Your task to perform on an android device: Search for Mexican restaurants on Maps Image 0: 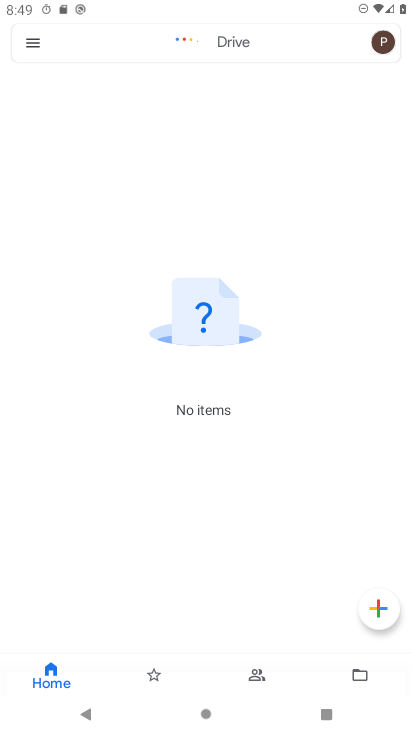
Step 0: press back button
Your task to perform on an android device: Search for Mexican restaurants on Maps Image 1: 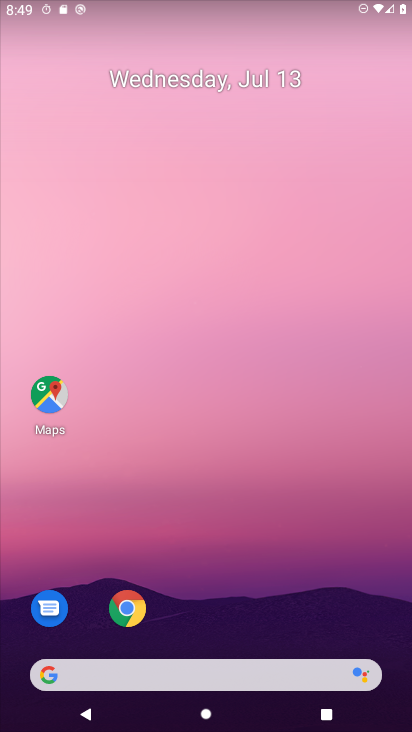
Step 1: drag from (263, 596) to (287, 230)
Your task to perform on an android device: Search for Mexican restaurants on Maps Image 2: 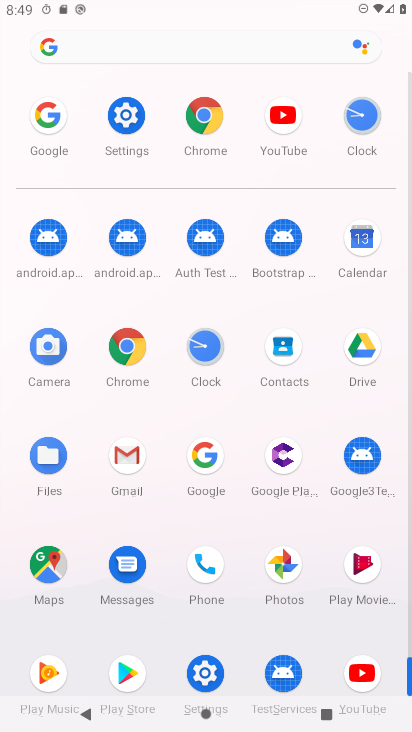
Step 2: click (45, 553)
Your task to perform on an android device: Search for Mexican restaurants on Maps Image 3: 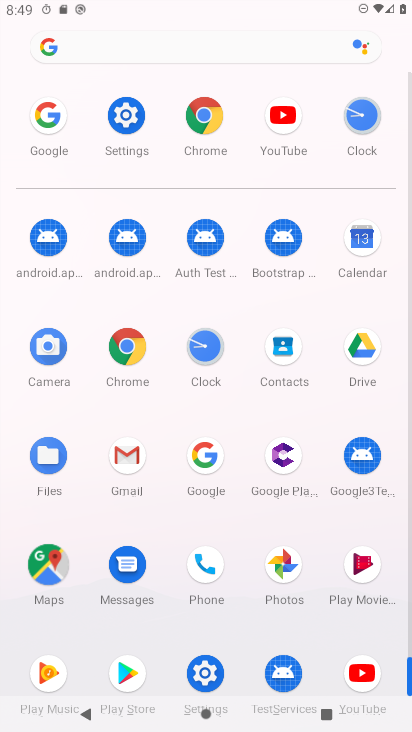
Step 3: click (45, 553)
Your task to perform on an android device: Search for Mexican restaurants on Maps Image 4: 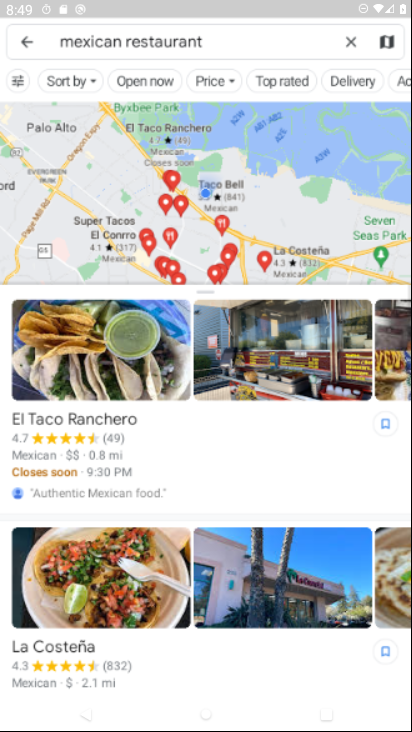
Step 4: click (45, 553)
Your task to perform on an android device: Search for Mexican restaurants on Maps Image 5: 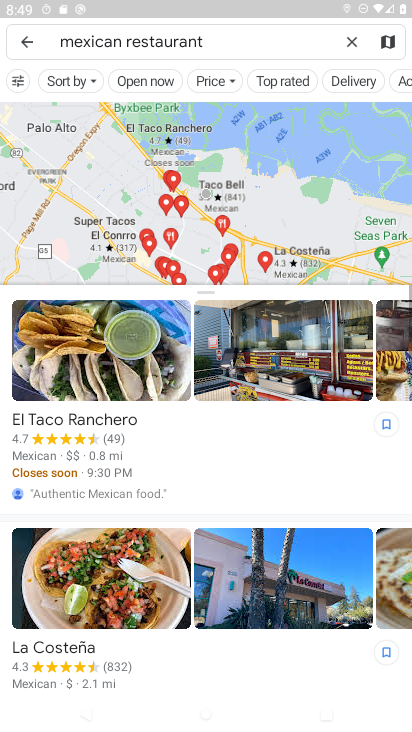
Step 5: click (348, 26)
Your task to perform on an android device: Search for Mexican restaurants on Maps Image 6: 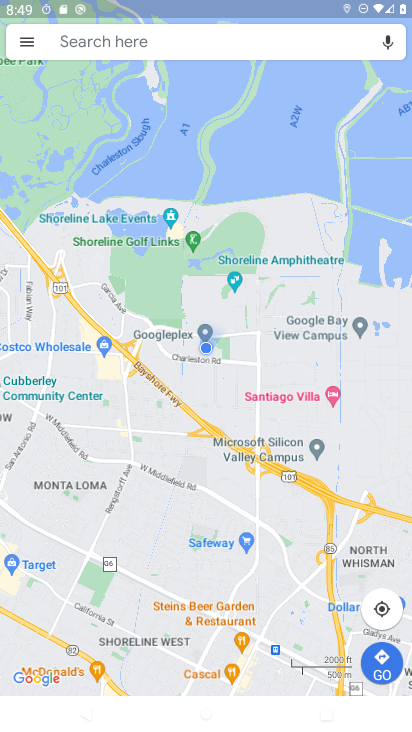
Step 6: click (67, 40)
Your task to perform on an android device: Search for Mexican restaurants on Maps Image 7: 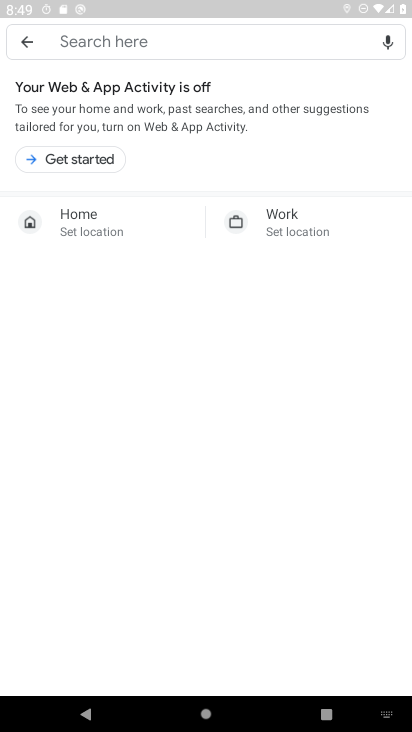
Step 7: type "mexican restaurnts"
Your task to perform on an android device: Search for Mexican restaurants on Maps Image 8: 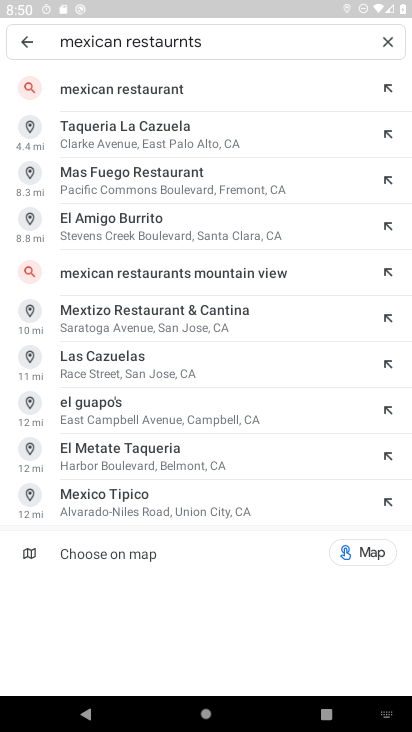
Step 8: click (162, 84)
Your task to perform on an android device: Search for Mexican restaurants on Maps Image 9: 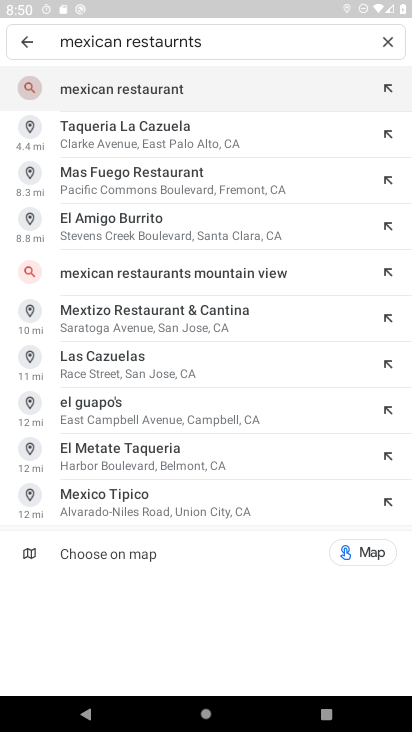
Step 9: click (167, 91)
Your task to perform on an android device: Search for Mexican restaurants on Maps Image 10: 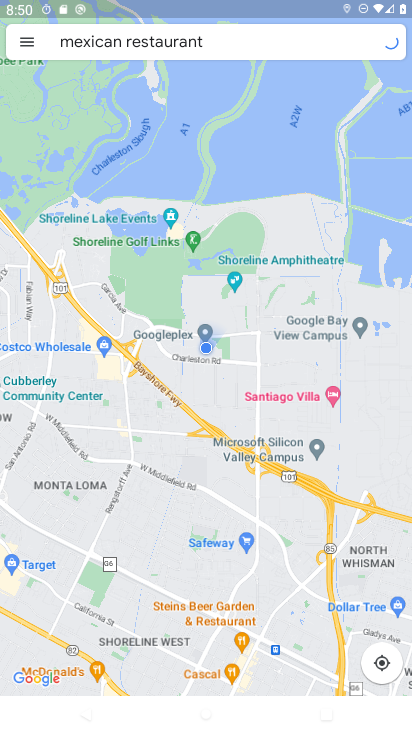
Step 10: click (167, 91)
Your task to perform on an android device: Search for Mexican restaurants on Maps Image 11: 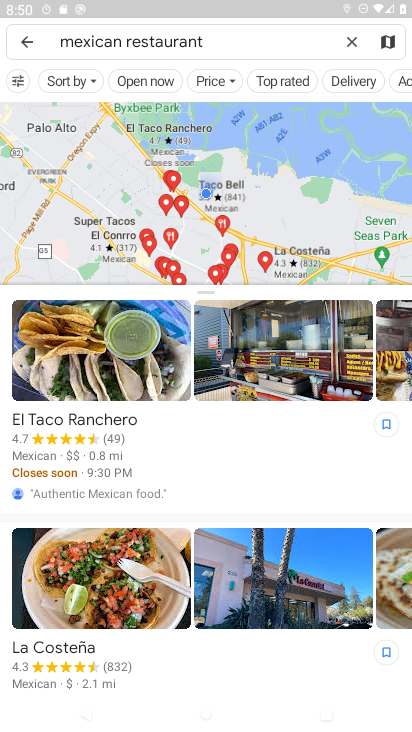
Step 11: task complete